Your task to perform on an android device: Go to calendar. Show me events next week Image 0: 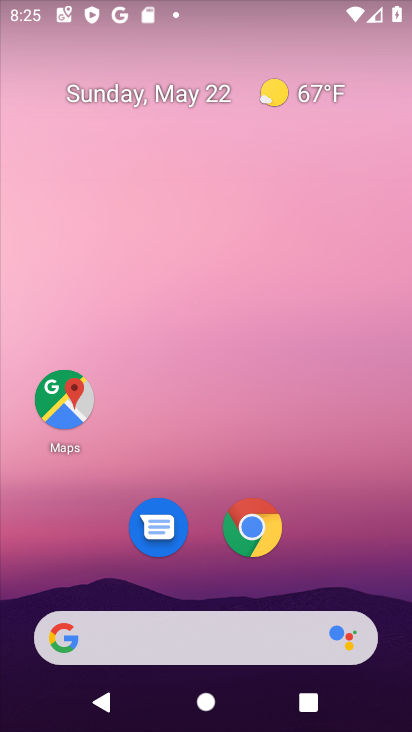
Step 0: press home button
Your task to perform on an android device: Go to calendar. Show me events next week Image 1: 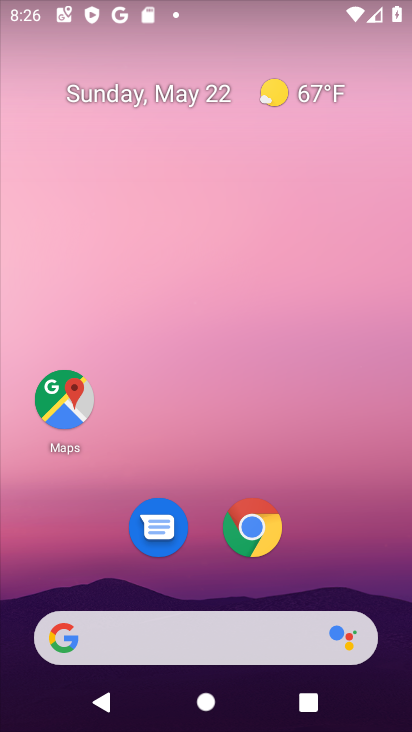
Step 1: drag from (204, 594) to (239, 7)
Your task to perform on an android device: Go to calendar. Show me events next week Image 2: 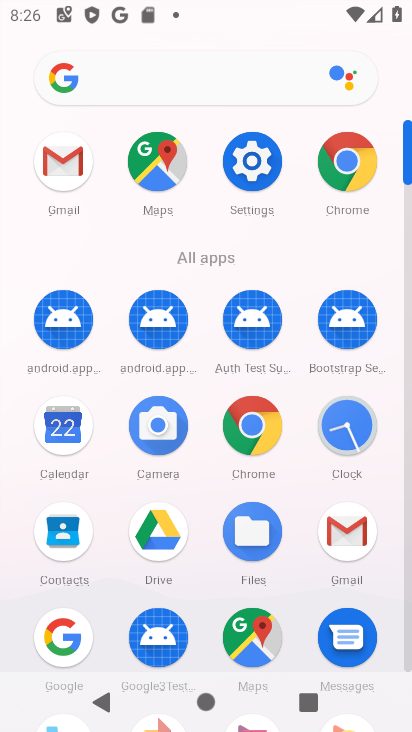
Step 2: click (60, 423)
Your task to perform on an android device: Go to calendar. Show me events next week Image 3: 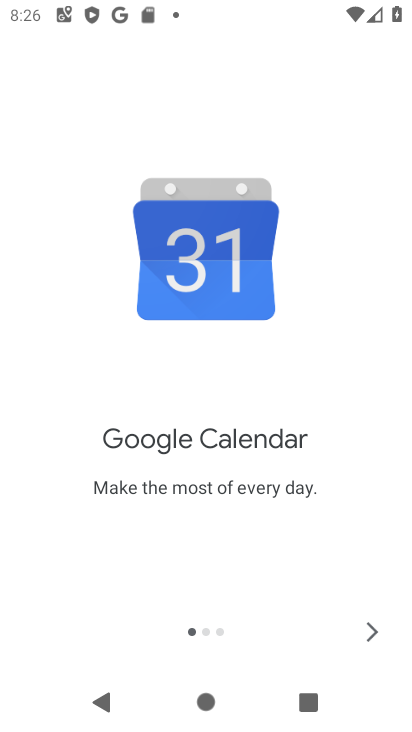
Step 3: click (365, 623)
Your task to perform on an android device: Go to calendar. Show me events next week Image 4: 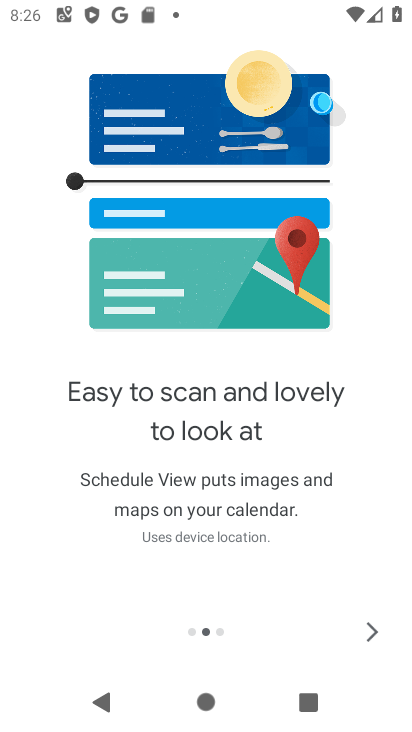
Step 4: click (363, 624)
Your task to perform on an android device: Go to calendar. Show me events next week Image 5: 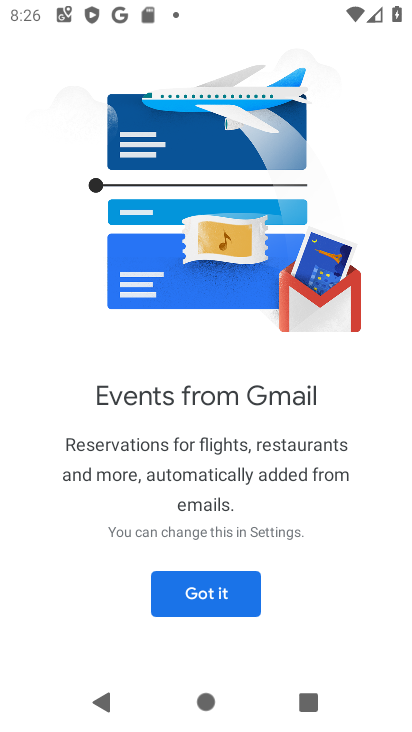
Step 5: click (211, 593)
Your task to perform on an android device: Go to calendar. Show me events next week Image 6: 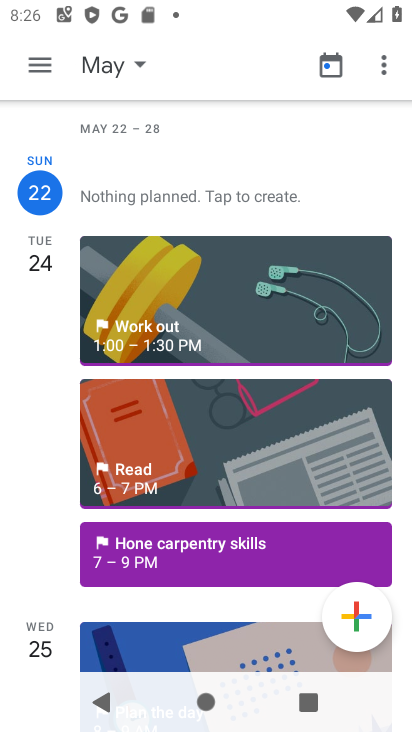
Step 6: click (135, 63)
Your task to perform on an android device: Go to calendar. Show me events next week Image 7: 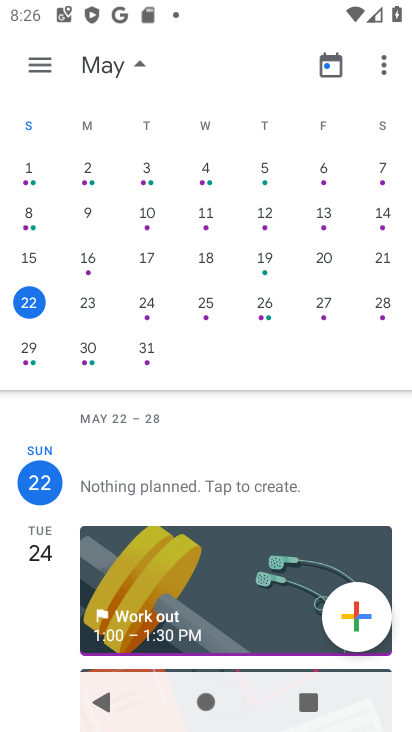
Step 7: click (22, 351)
Your task to perform on an android device: Go to calendar. Show me events next week Image 8: 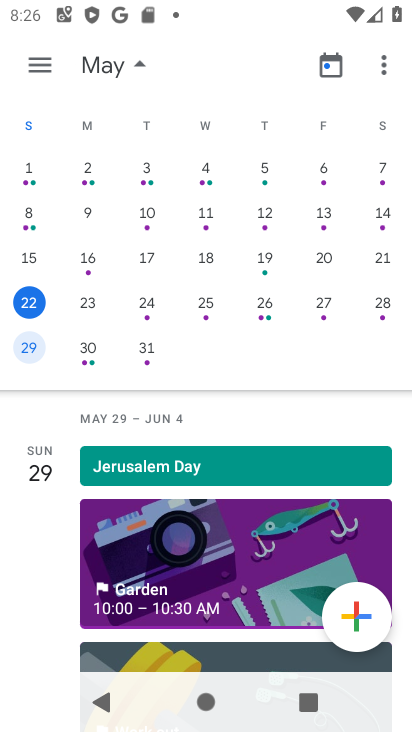
Step 8: click (142, 57)
Your task to perform on an android device: Go to calendar. Show me events next week Image 9: 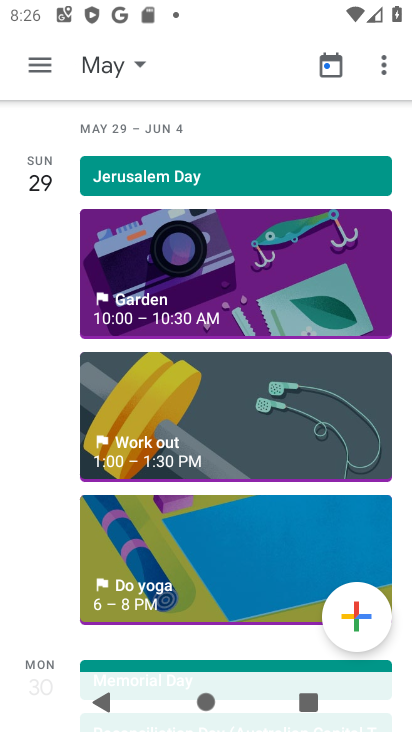
Step 9: task complete